Your task to perform on an android device: Add lg ultragear to the cart on bestbuy, then select checkout. Image 0: 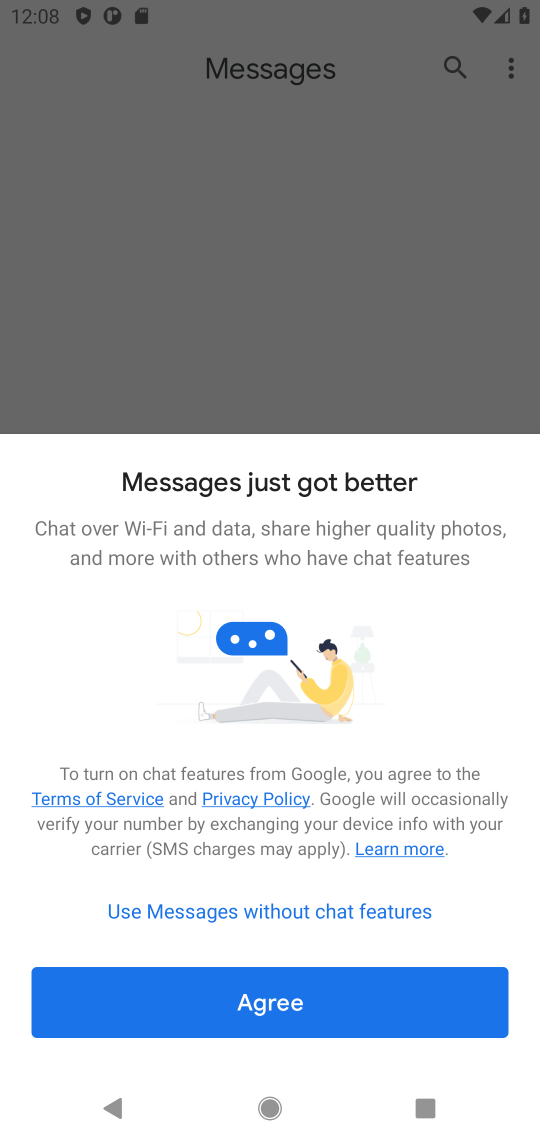
Step 0: press home button
Your task to perform on an android device: Add lg ultragear to the cart on bestbuy, then select checkout. Image 1: 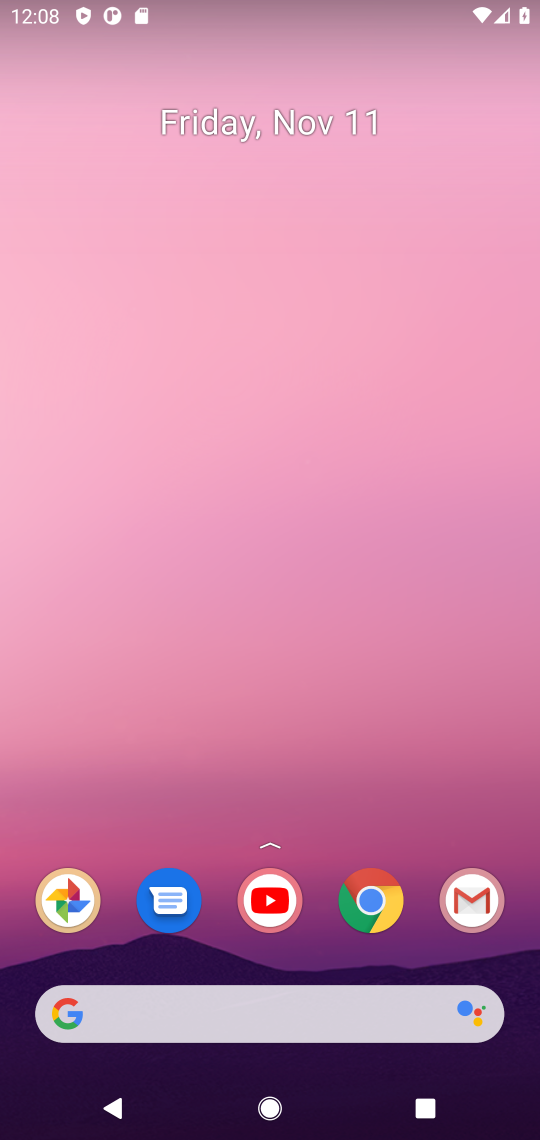
Step 1: click (375, 908)
Your task to perform on an android device: Add lg ultragear to the cart on bestbuy, then select checkout. Image 2: 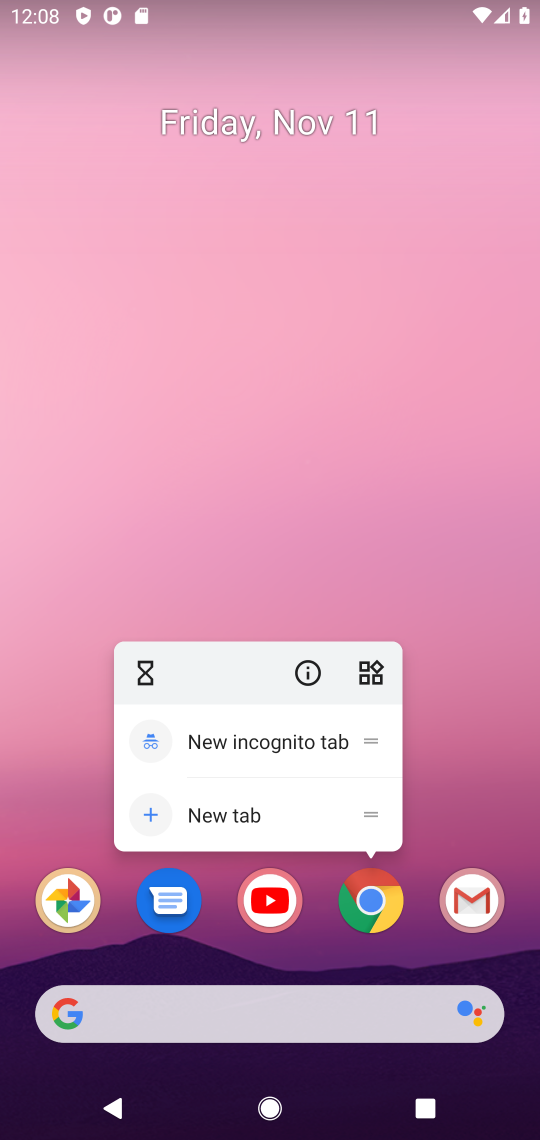
Step 2: click (375, 907)
Your task to perform on an android device: Add lg ultragear to the cart on bestbuy, then select checkout. Image 3: 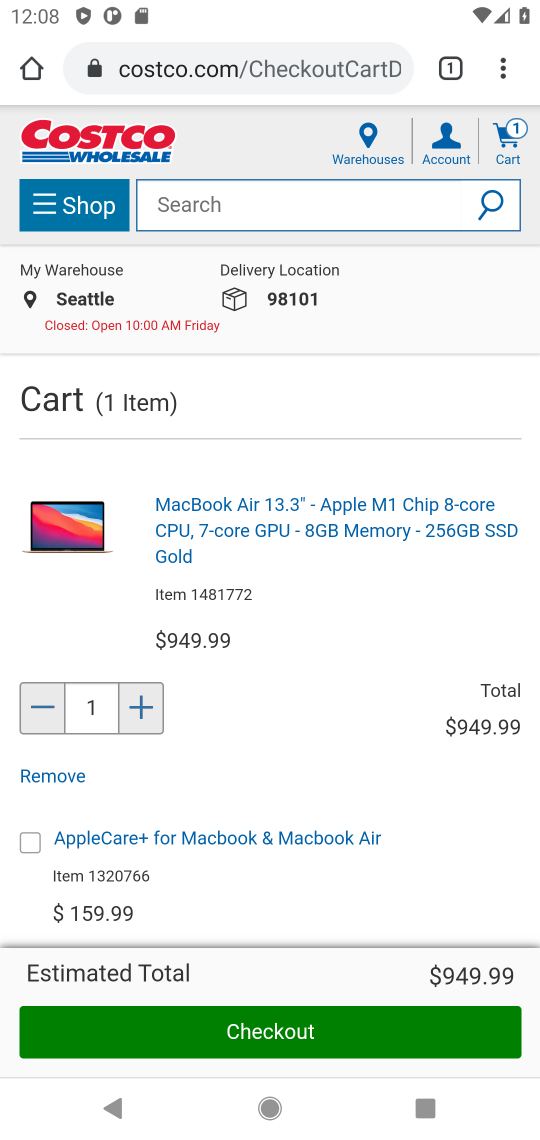
Step 3: click (285, 59)
Your task to perform on an android device: Add lg ultragear to the cart on bestbuy, then select checkout. Image 4: 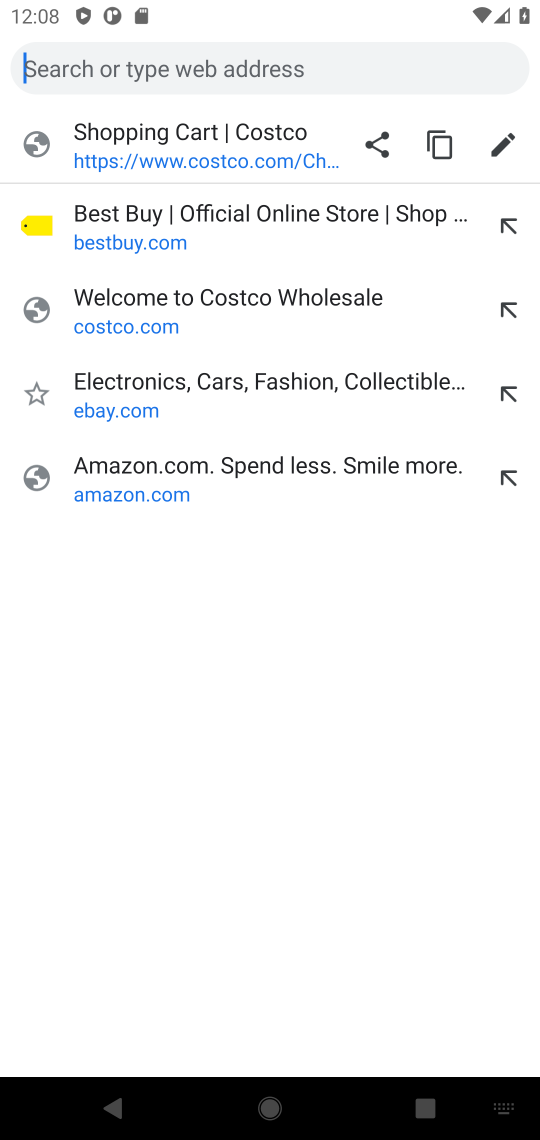
Step 4: click (95, 238)
Your task to perform on an android device: Add lg ultragear to the cart on bestbuy, then select checkout. Image 5: 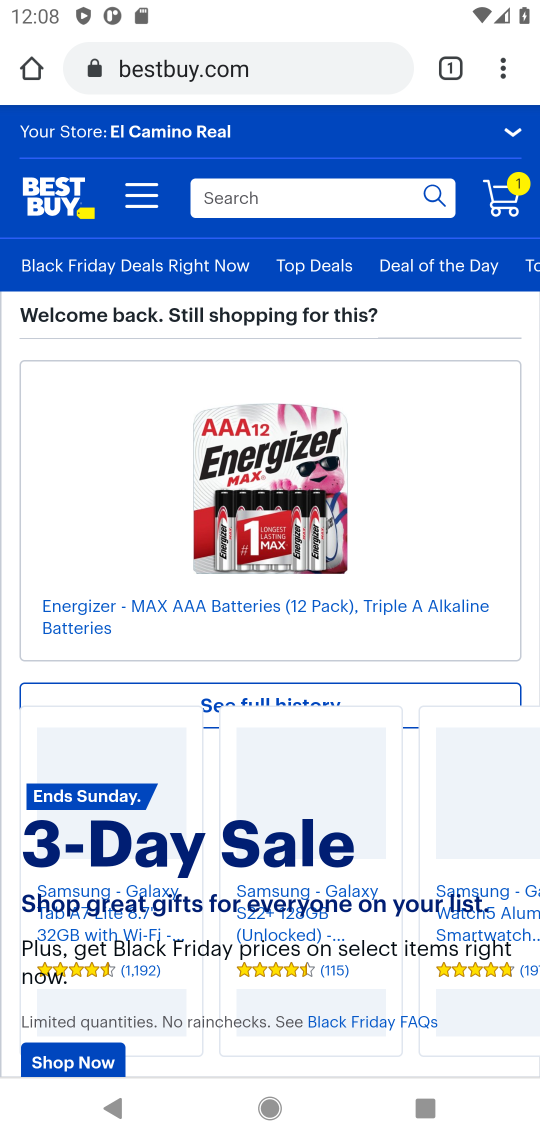
Step 5: click (308, 204)
Your task to perform on an android device: Add lg ultragear to the cart on bestbuy, then select checkout. Image 6: 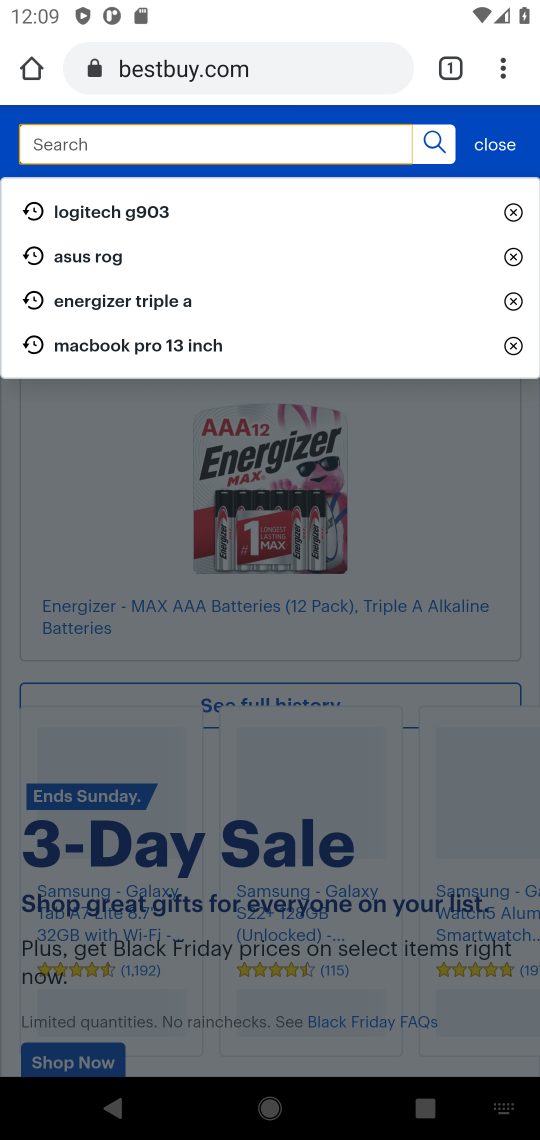
Step 6: press enter
Your task to perform on an android device: Add lg ultragear to the cart on bestbuy, then select checkout. Image 7: 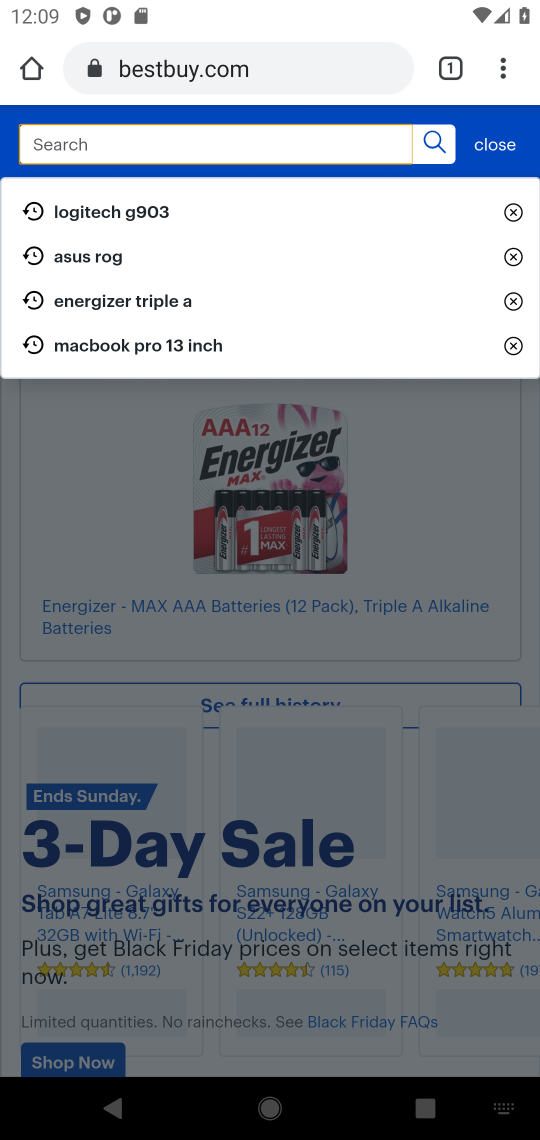
Step 7: type "lg ultragear"
Your task to perform on an android device: Add lg ultragear to the cart on bestbuy, then select checkout. Image 8: 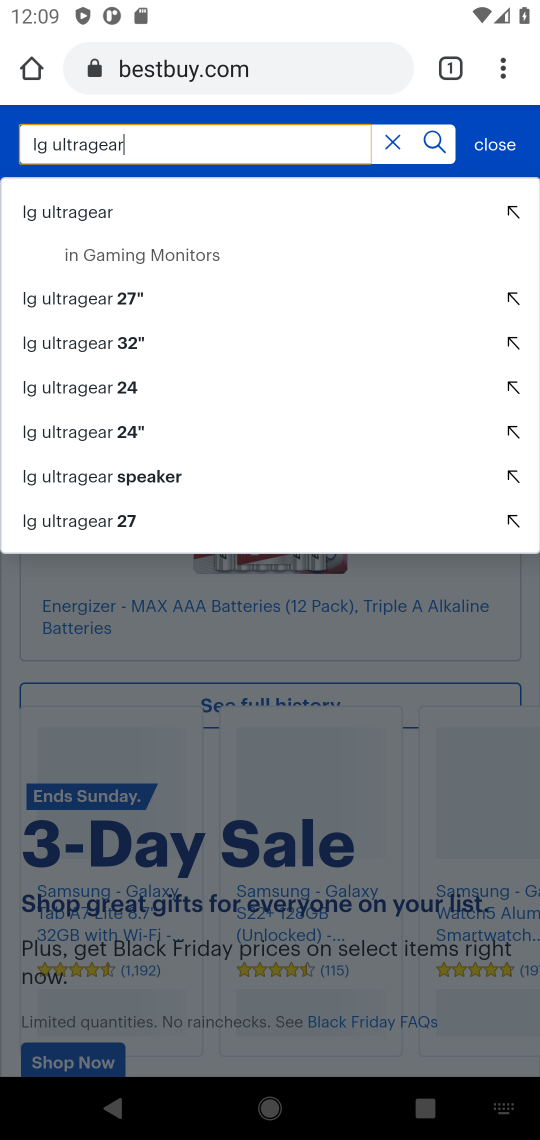
Step 8: press enter
Your task to perform on an android device: Add lg ultragear to the cart on bestbuy, then select checkout. Image 9: 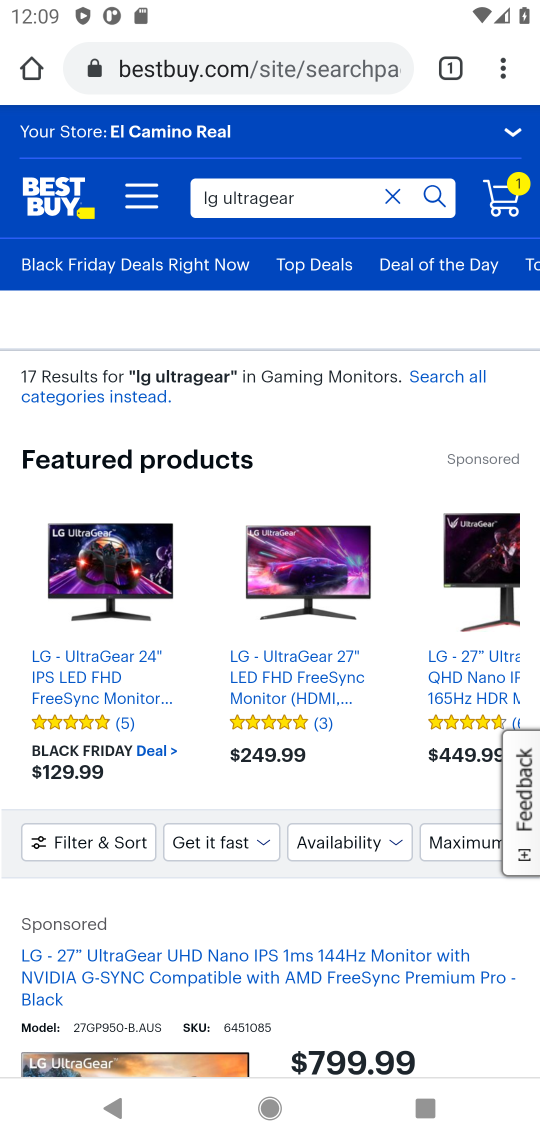
Step 9: drag from (263, 728) to (404, 433)
Your task to perform on an android device: Add lg ultragear to the cart on bestbuy, then select checkout. Image 10: 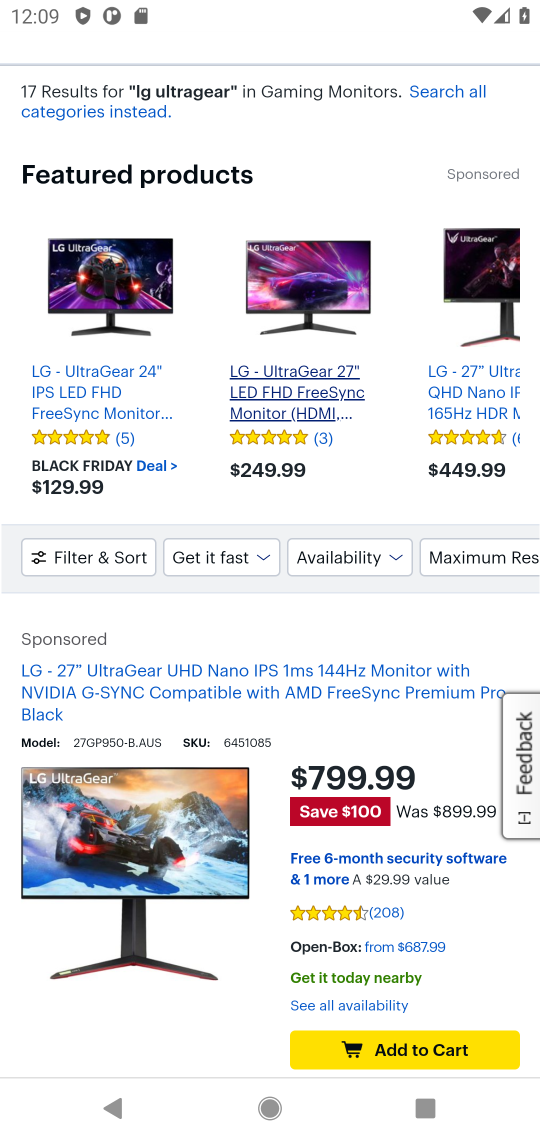
Step 10: click (435, 1045)
Your task to perform on an android device: Add lg ultragear to the cart on bestbuy, then select checkout. Image 11: 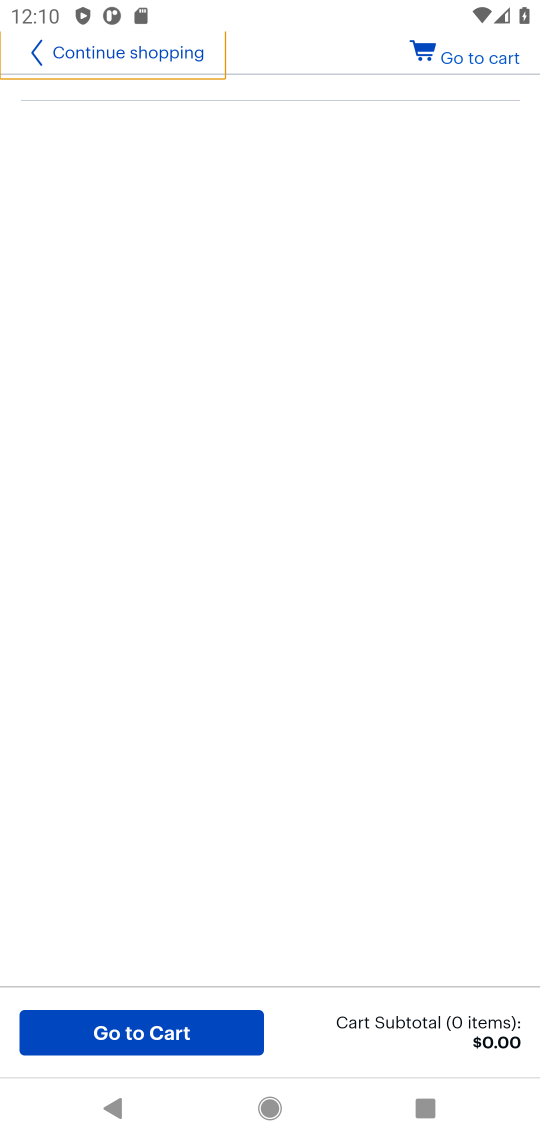
Step 11: drag from (375, 397) to (287, 786)
Your task to perform on an android device: Add lg ultragear to the cart on bestbuy, then select checkout. Image 12: 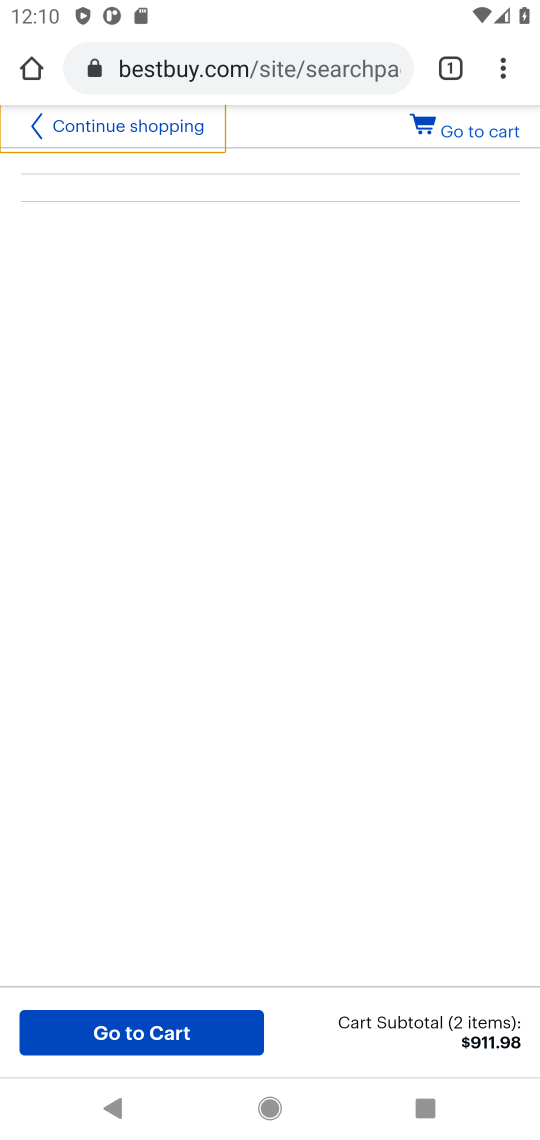
Step 12: click (482, 58)
Your task to perform on an android device: Add lg ultragear to the cart on bestbuy, then select checkout. Image 13: 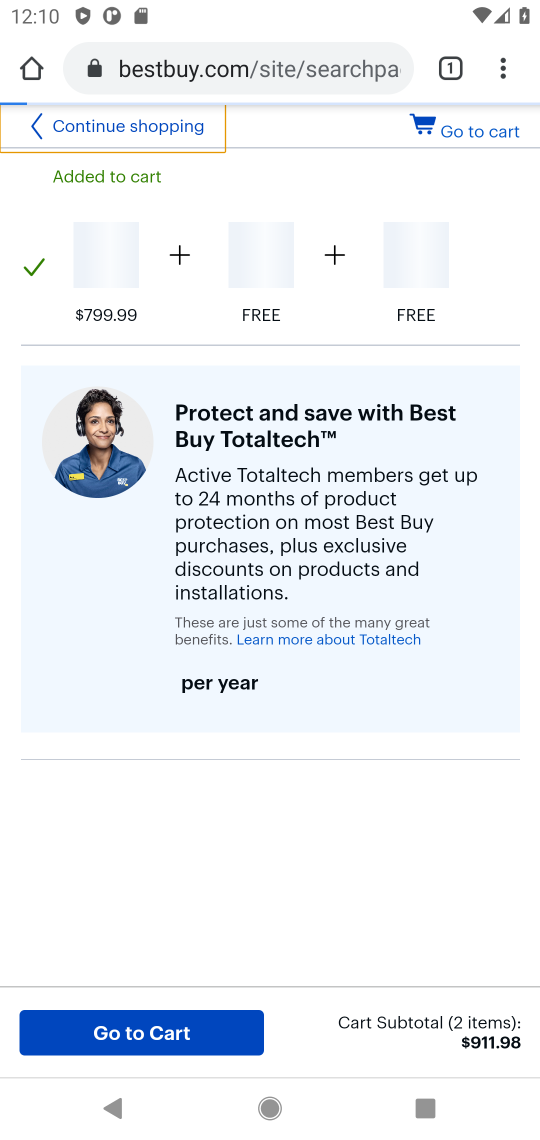
Step 13: click (487, 129)
Your task to perform on an android device: Add lg ultragear to the cart on bestbuy, then select checkout. Image 14: 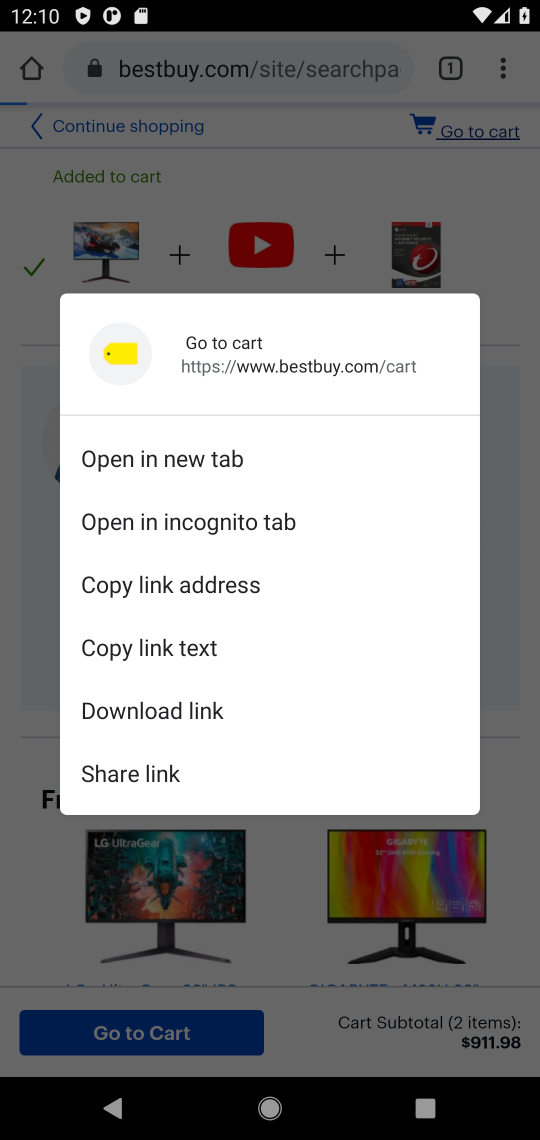
Step 14: click (495, 131)
Your task to perform on an android device: Add lg ultragear to the cart on bestbuy, then select checkout. Image 15: 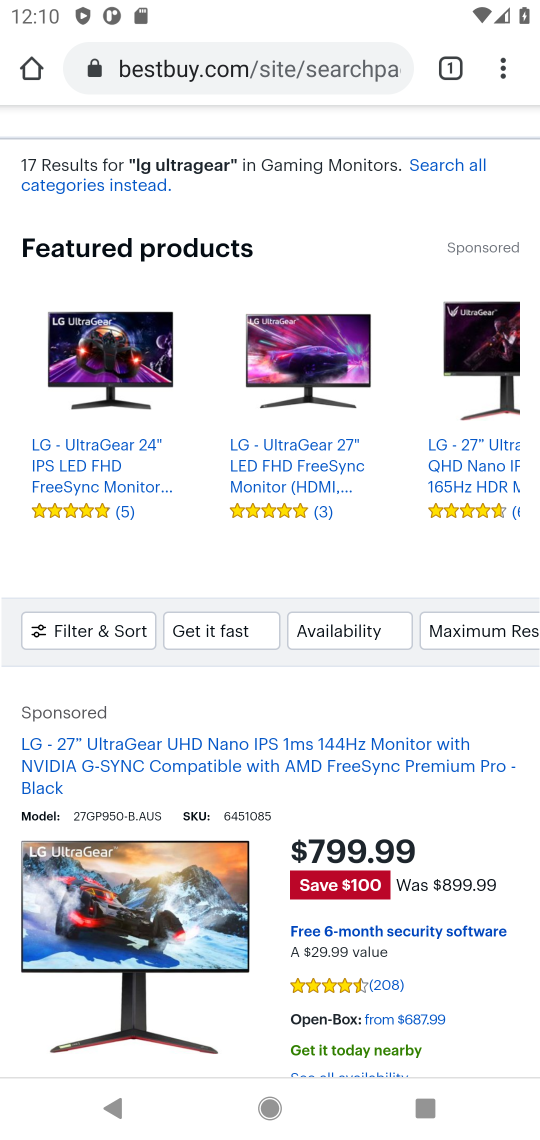
Step 15: drag from (188, 1008) to (336, 489)
Your task to perform on an android device: Add lg ultragear to the cart on bestbuy, then select checkout. Image 16: 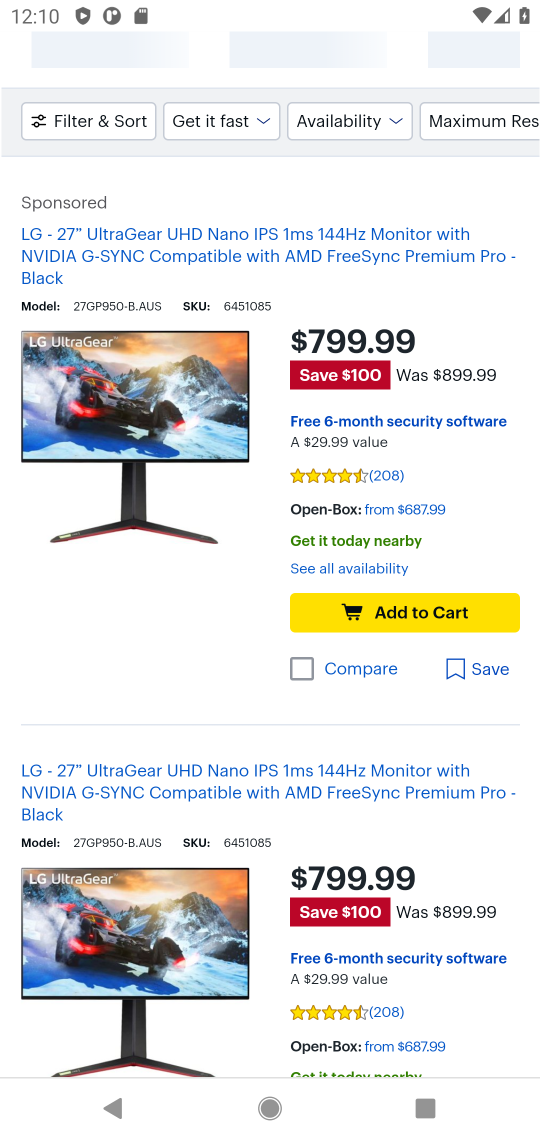
Step 16: drag from (440, 268) to (365, 1064)
Your task to perform on an android device: Add lg ultragear to the cart on bestbuy, then select checkout. Image 17: 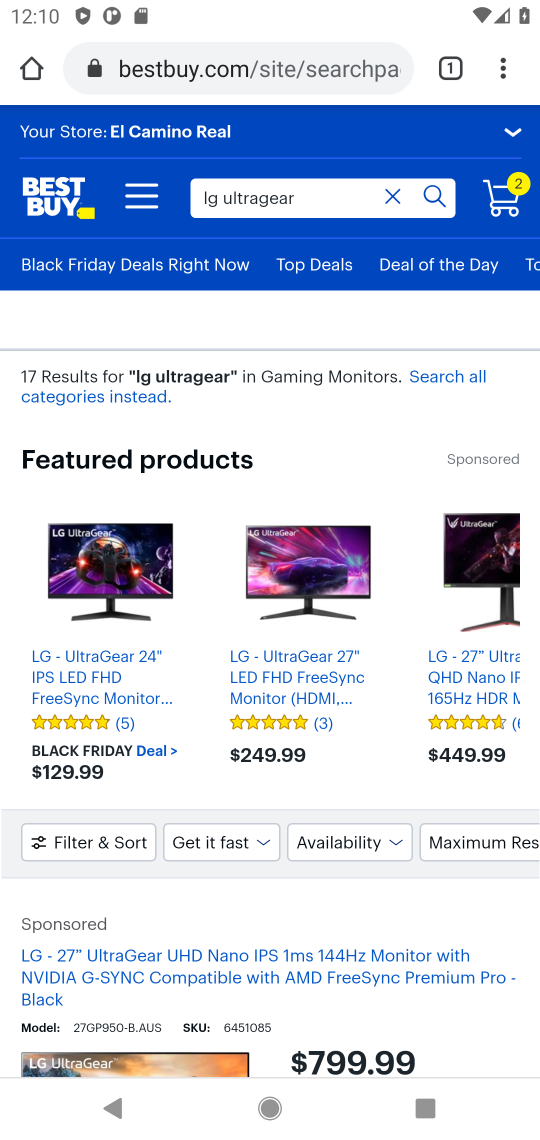
Step 17: click (500, 203)
Your task to perform on an android device: Add lg ultragear to the cart on bestbuy, then select checkout. Image 18: 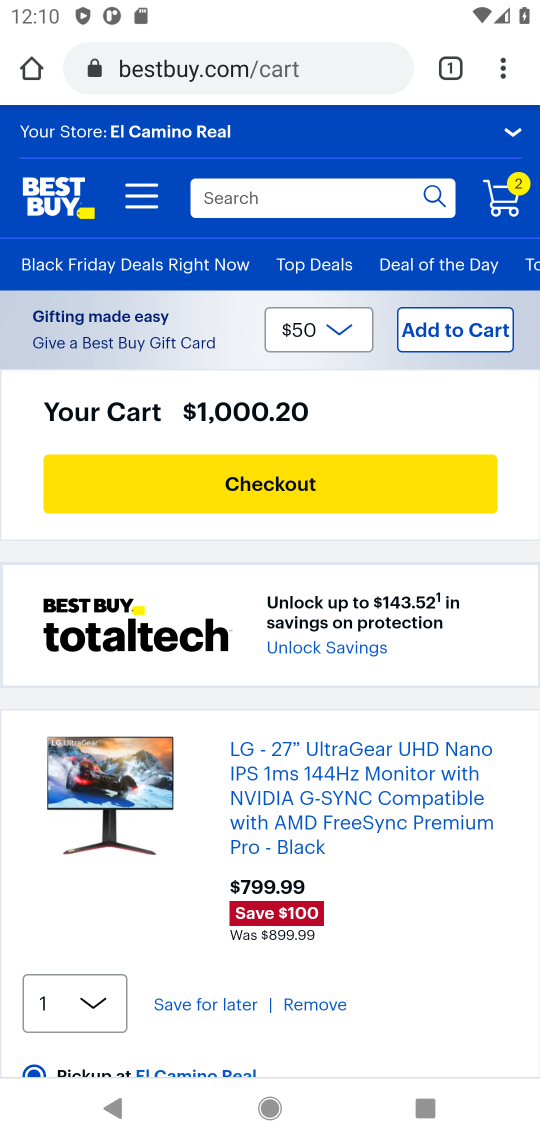
Step 18: drag from (363, 822) to (435, 143)
Your task to perform on an android device: Add lg ultragear to the cart on bestbuy, then select checkout. Image 19: 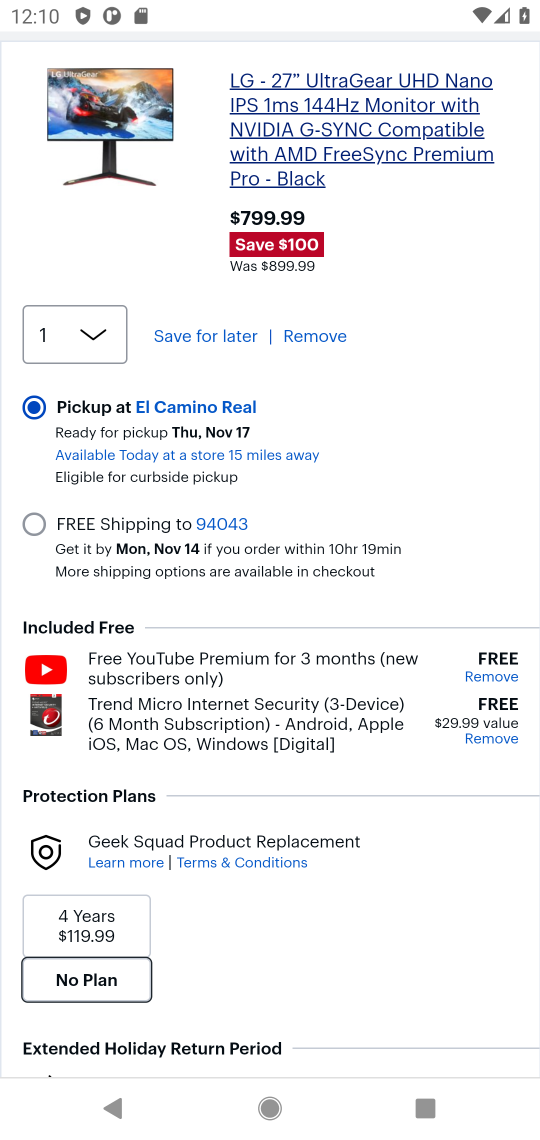
Step 19: drag from (327, 857) to (365, 395)
Your task to perform on an android device: Add lg ultragear to the cart on bestbuy, then select checkout. Image 20: 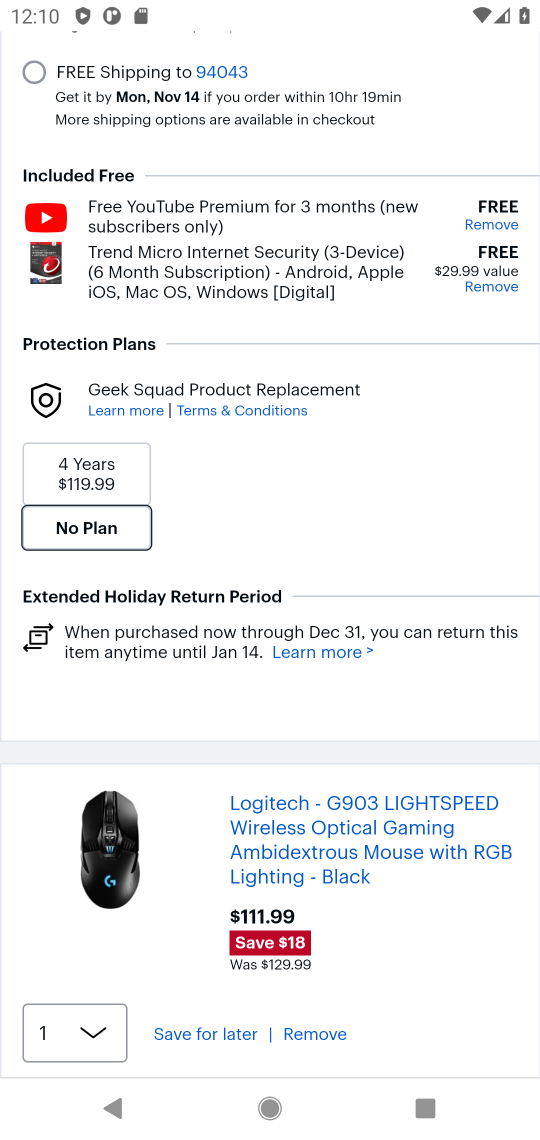
Step 20: click (296, 1034)
Your task to perform on an android device: Add lg ultragear to the cart on bestbuy, then select checkout. Image 21: 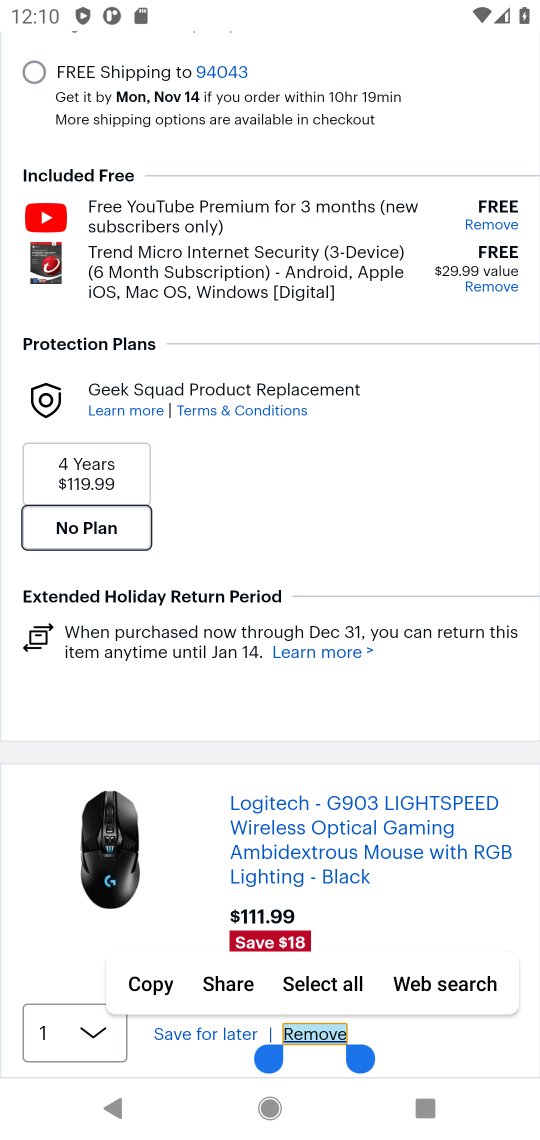
Step 21: click (326, 1041)
Your task to perform on an android device: Add lg ultragear to the cart on bestbuy, then select checkout. Image 22: 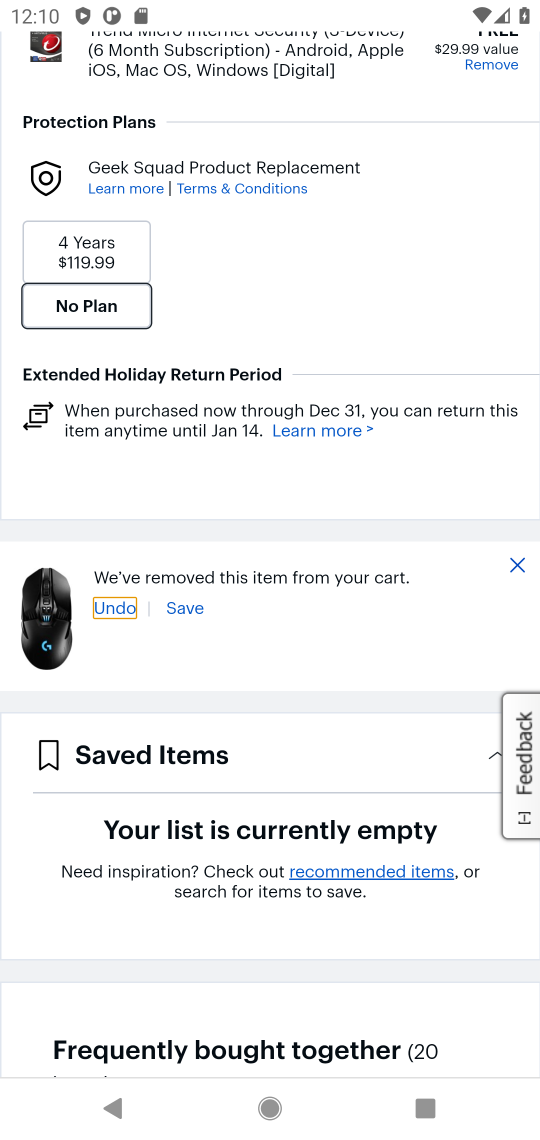
Step 22: drag from (416, 773) to (399, 1030)
Your task to perform on an android device: Add lg ultragear to the cart on bestbuy, then select checkout. Image 23: 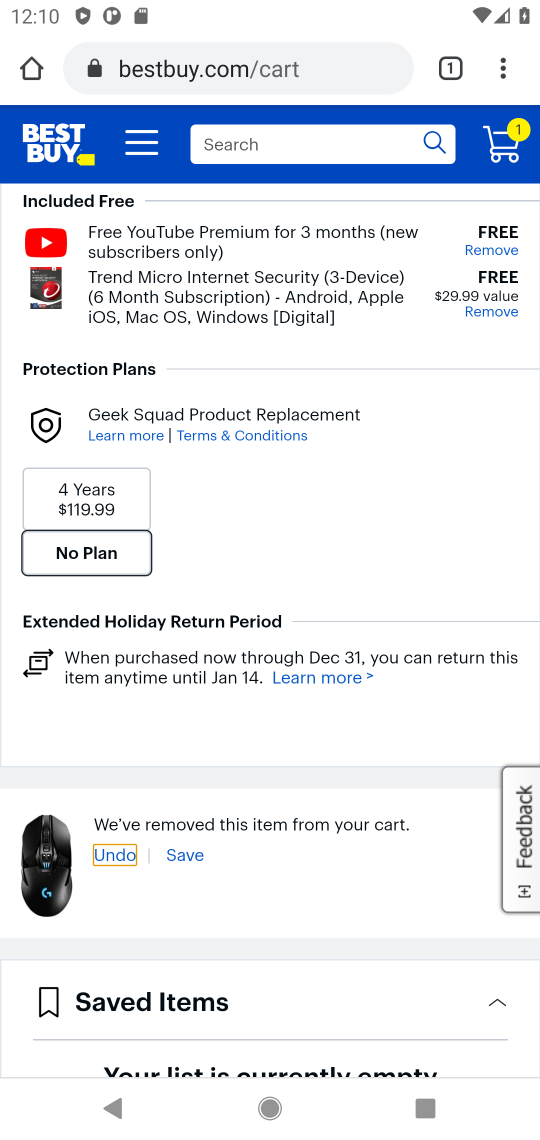
Step 23: drag from (366, 418) to (331, 1024)
Your task to perform on an android device: Add lg ultragear to the cart on bestbuy, then select checkout. Image 24: 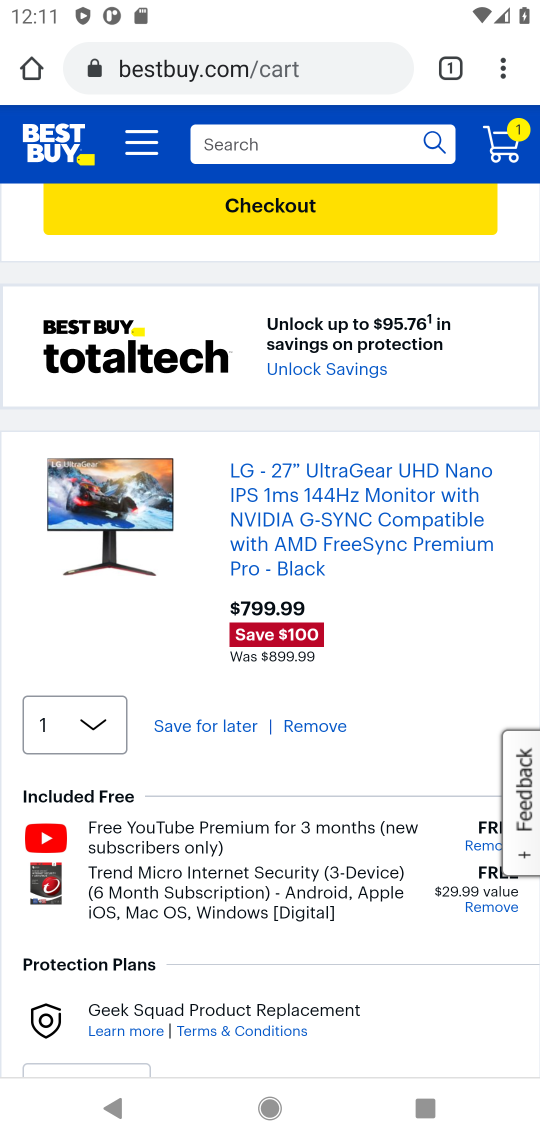
Step 24: click (295, 205)
Your task to perform on an android device: Add lg ultragear to the cart on bestbuy, then select checkout. Image 25: 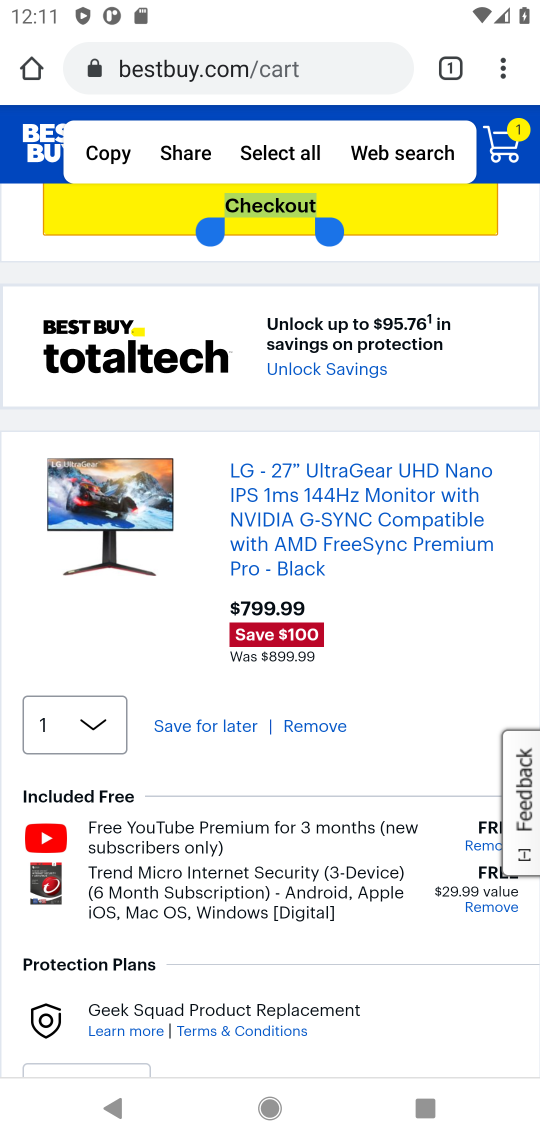
Step 25: click (286, 214)
Your task to perform on an android device: Add lg ultragear to the cart on bestbuy, then select checkout. Image 26: 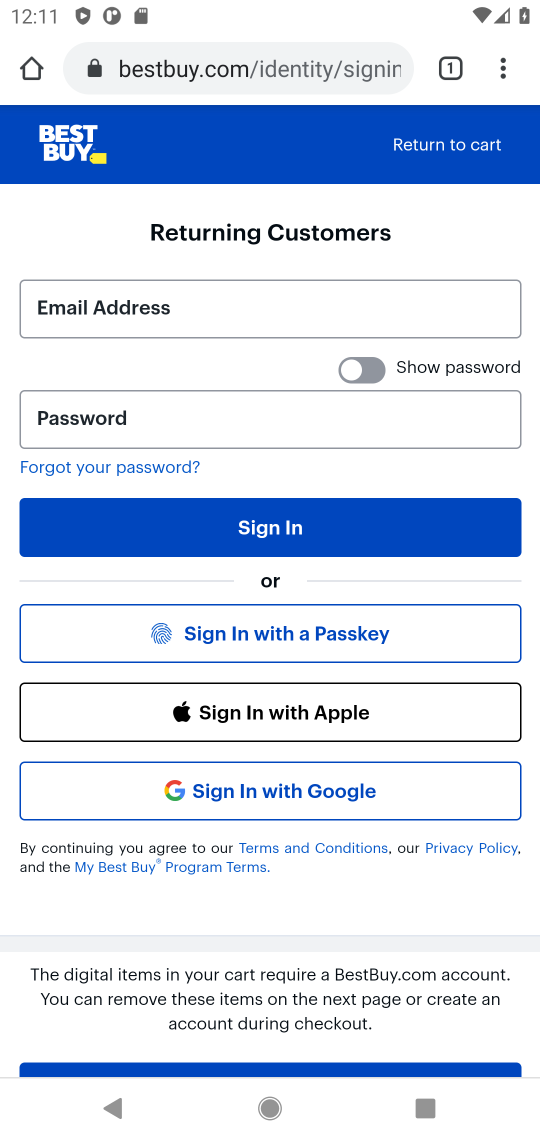
Step 26: task complete